Your task to perform on an android device: Set the phone to "Do not disturb". Image 0: 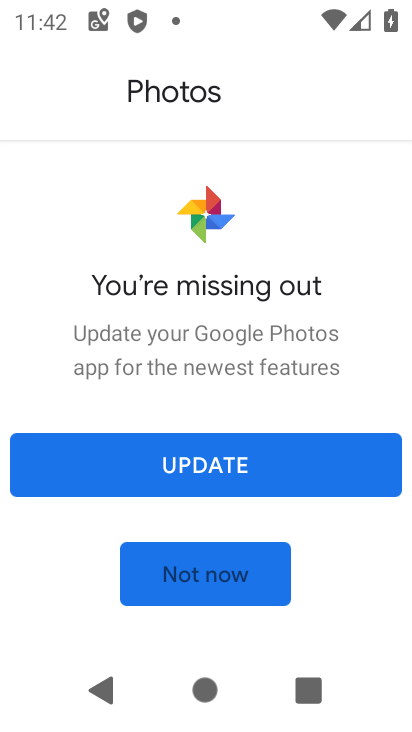
Step 0: press home button
Your task to perform on an android device: Set the phone to "Do not disturb". Image 1: 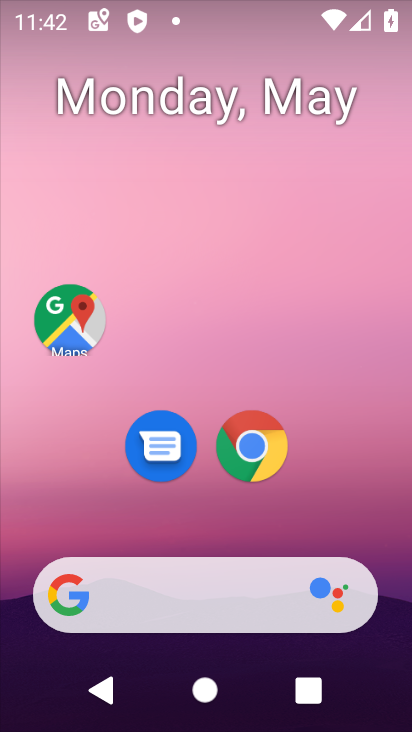
Step 1: drag from (313, 520) to (251, 73)
Your task to perform on an android device: Set the phone to "Do not disturb". Image 2: 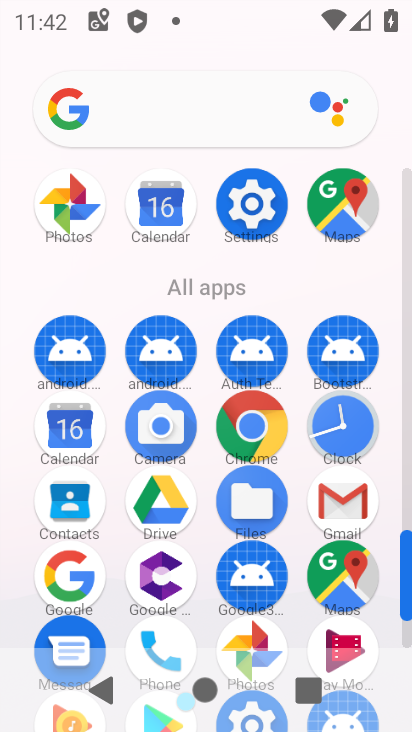
Step 2: click (253, 202)
Your task to perform on an android device: Set the phone to "Do not disturb". Image 3: 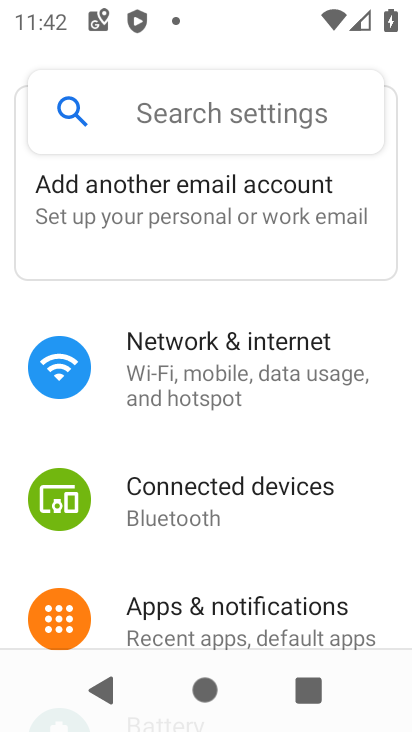
Step 3: drag from (260, 573) to (281, 428)
Your task to perform on an android device: Set the phone to "Do not disturb". Image 4: 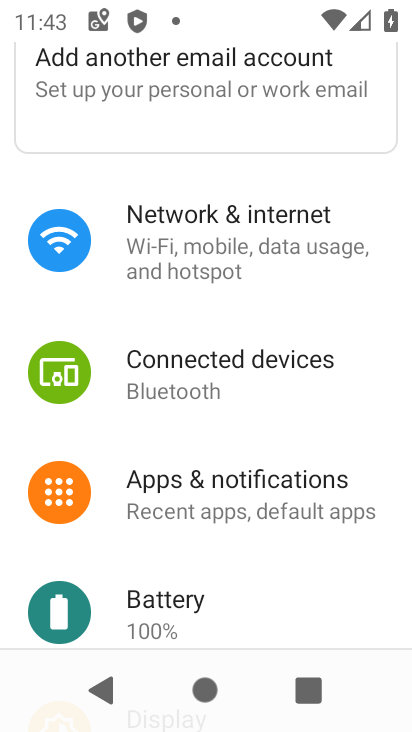
Step 4: drag from (233, 547) to (303, 431)
Your task to perform on an android device: Set the phone to "Do not disturb". Image 5: 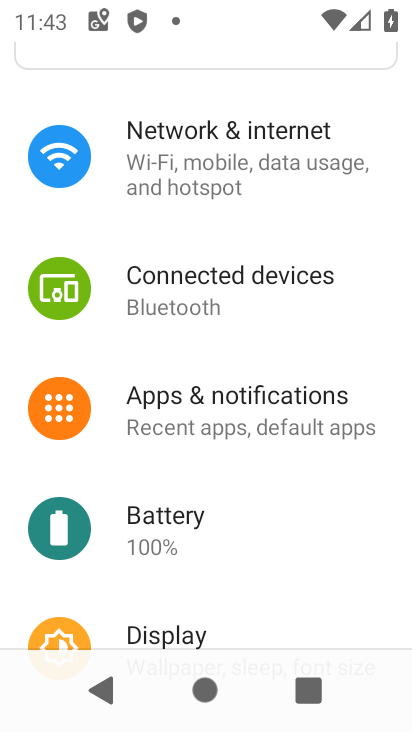
Step 5: drag from (227, 582) to (291, 454)
Your task to perform on an android device: Set the phone to "Do not disturb". Image 6: 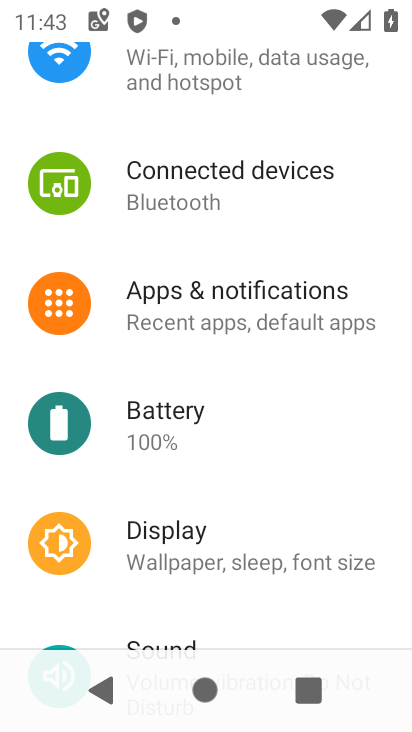
Step 6: drag from (258, 517) to (255, 389)
Your task to perform on an android device: Set the phone to "Do not disturb". Image 7: 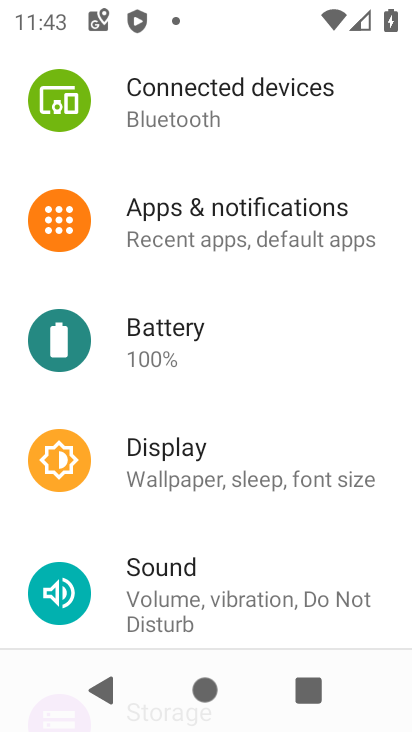
Step 7: drag from (244, 550) to (286, 417)
Your task to perform on an android device: Set the phone to "Do not disturb". Image 8: 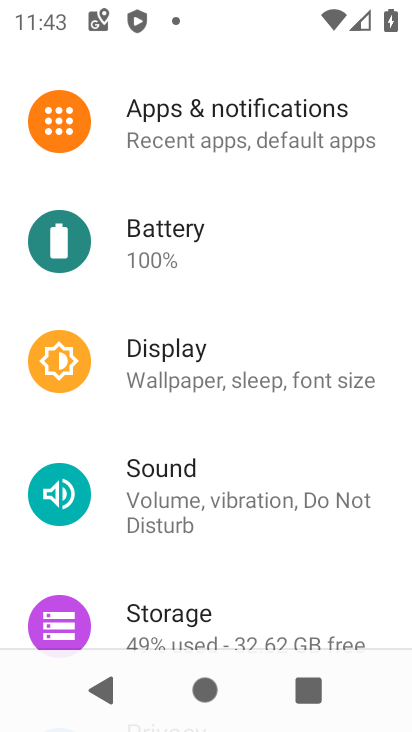
Step 8: click (190, 496)
Your task to perform on an android device: Set the phone to "Do not disturb". Image 9: 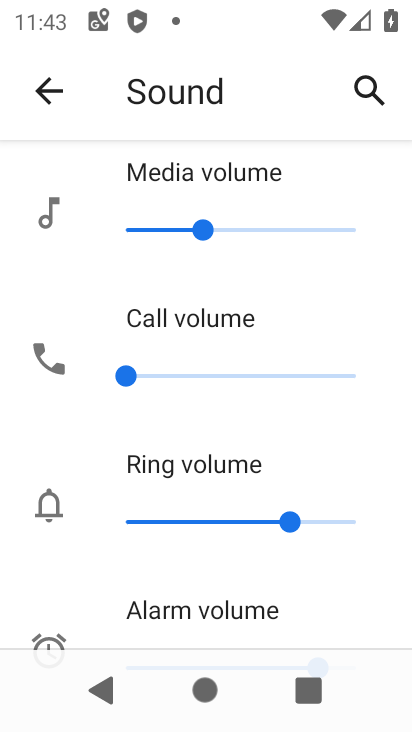
Step 9: drag from (173, 555) to (201, 444)
Your task to perform on an android device: Set the phone to "Do not disturb". Image 10: 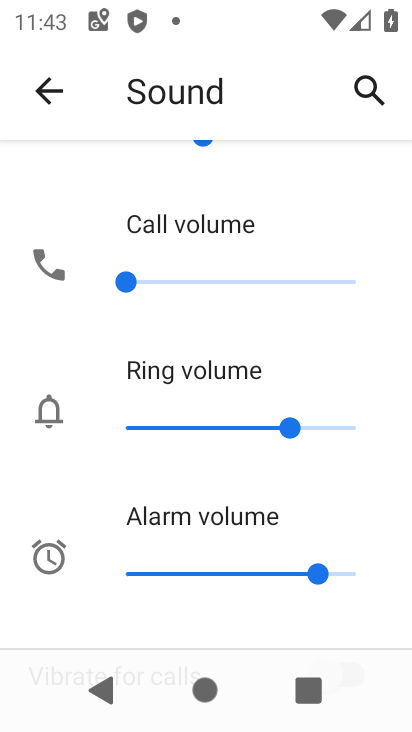
Step 10: drag from (193, 596) to (228, 468)
Your task to perform on an android device: Set the phone to "Do not disturb". Image 11: 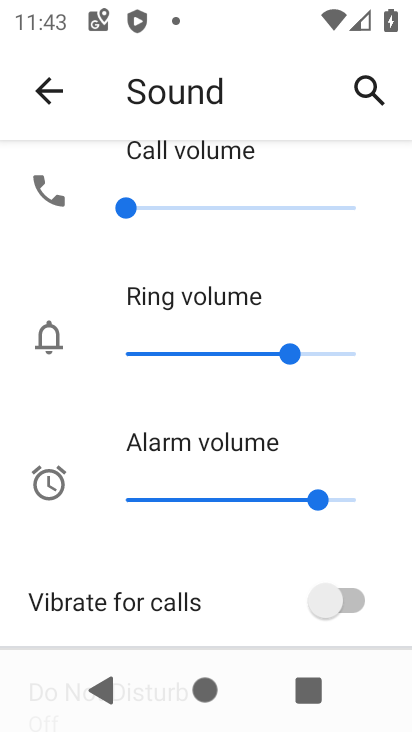
Step 11: drag from (156, 617) to (219, 465)
Your task to perform on an android device: Set the phone to "Do not disturb". Image 12: 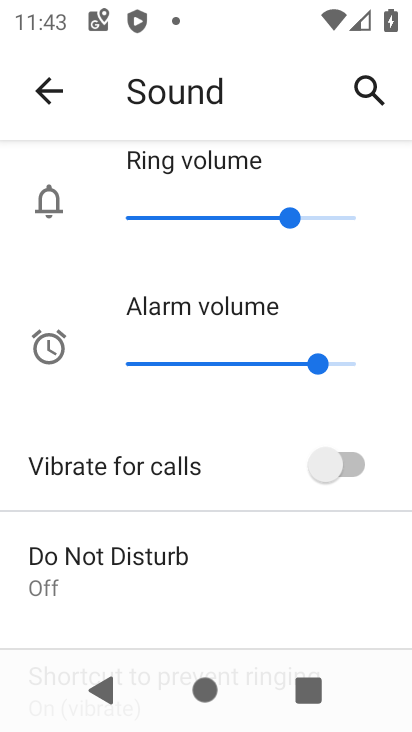
Step 12: click (153, 554)
Your task to perform on an android device: Set the phone to "Do not disturb". Image 13: 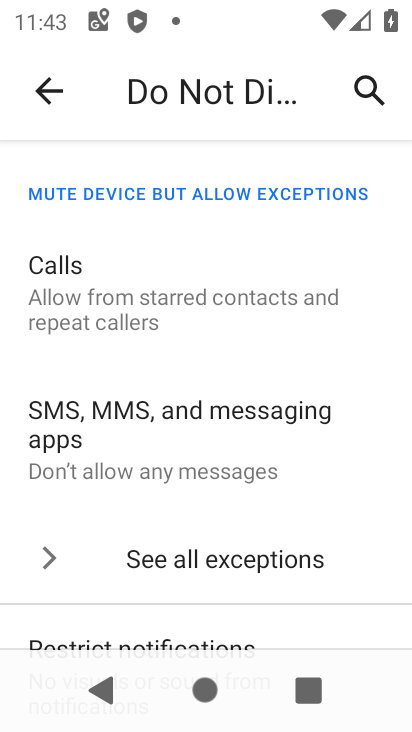
Step 13: drag from (156, 600) to (187, 469)
Your task to perform on an android device: Set the phone to "Do not disturb". Image 14: 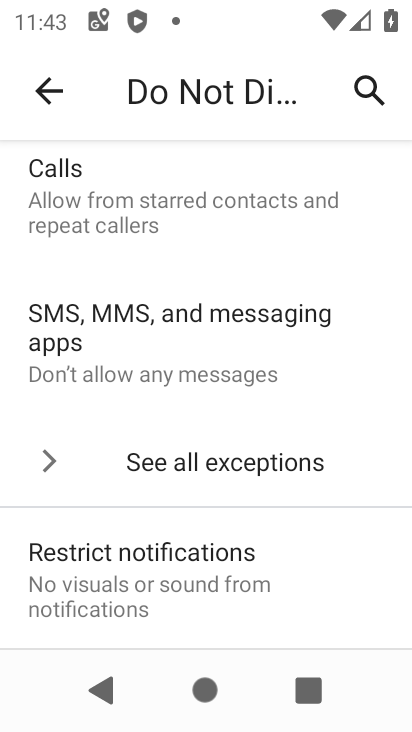
Step 14: drag from (197, 607) to (241, 448)
Your task to perform on an android device: Set the phone to "Do not disturb". Image 15: 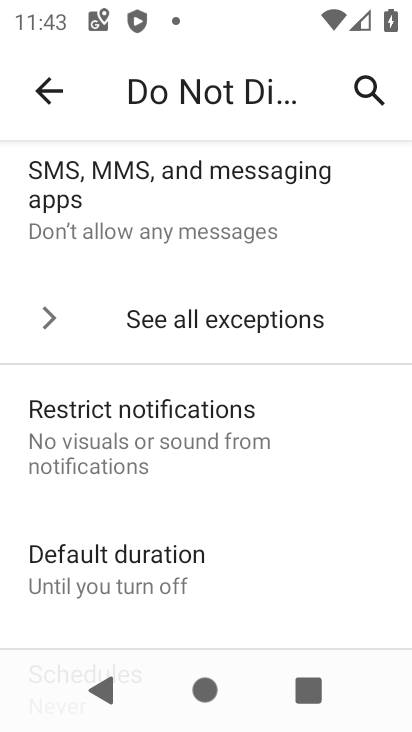
Step 15: drag from (216, 593) to (243, 436)
Your task to perform on an android device: Set the phone to "Do not disturb". Image 16: 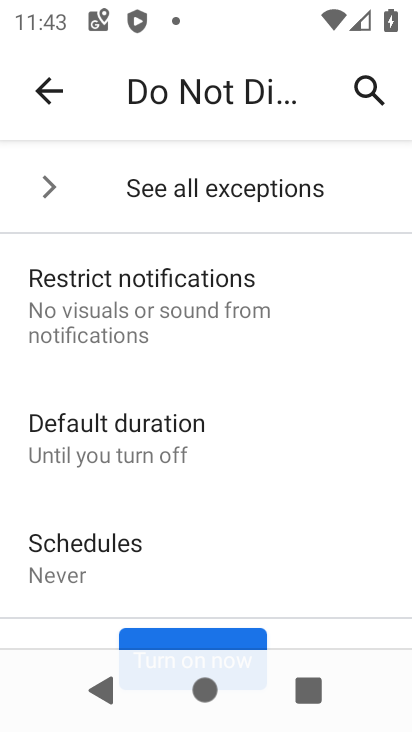
Step 16: drag from (196, 588) to (240, 424)
Your task to perform on an android device: Set the phone to "Do not disturb". Image 17: 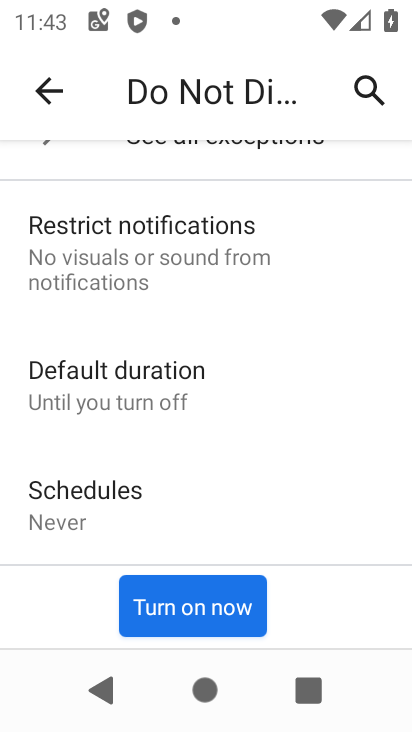
Step 17: click (185, 606)
Your task to perform on an android device: Set the phone to "Do not disturb". Image 18: 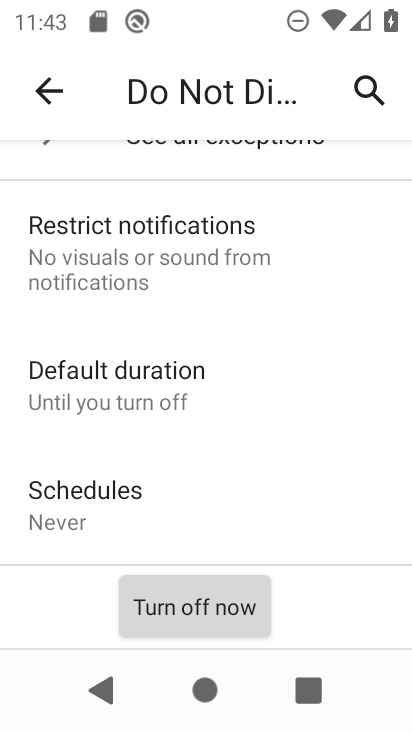
Step 18: task complete